Your task to perform on an android device: check battery use Image 0: 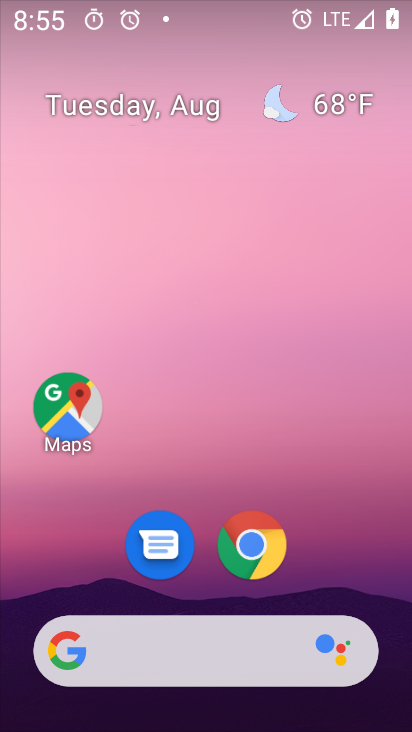
Step 0: drag from (267, 580) to (330, 79)
Your task to perform on an android device: check battery use Image 1: 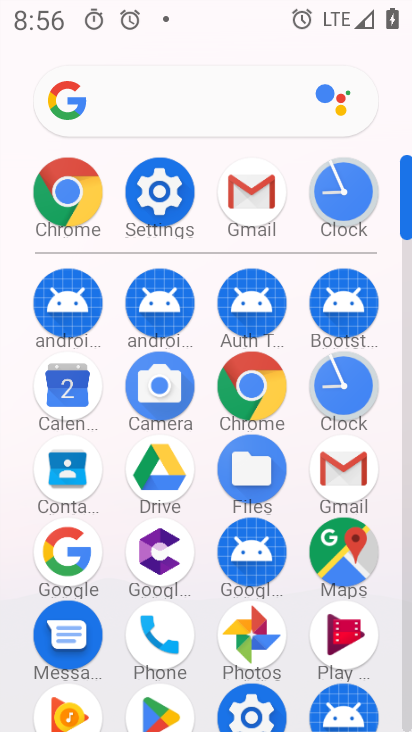
Step 1: click (167, 205)
Your task to perform on an android device: check battery use Image 2: 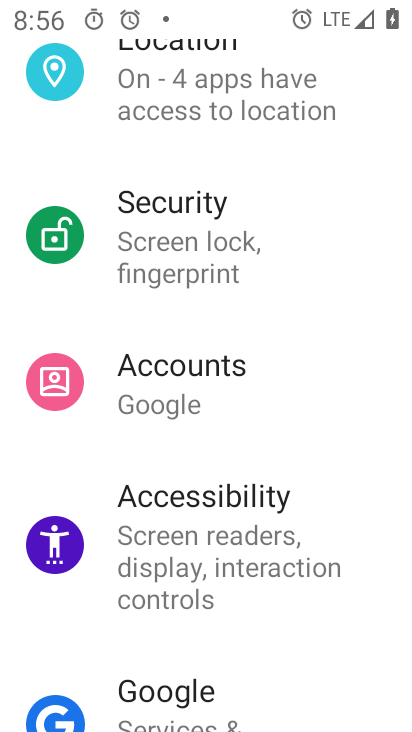
Step 2: drag from (170, 253) to (132, 557)
Your task to perform on an android device: check battery use Image 3: 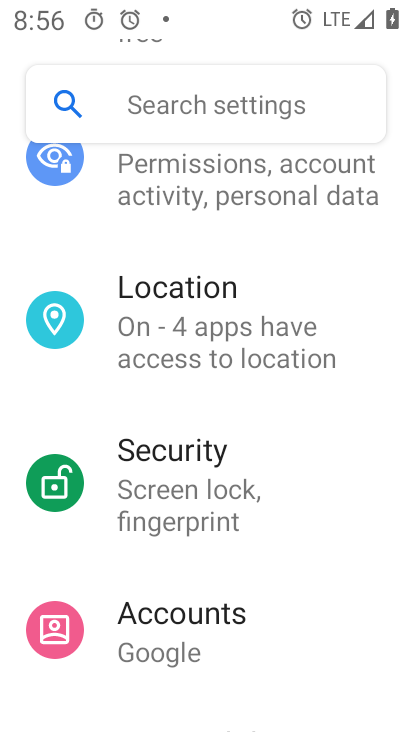
Step 3: drag from (191, 368) to (179, 722)
Your task to perform on an android device: check battery use Image 4: 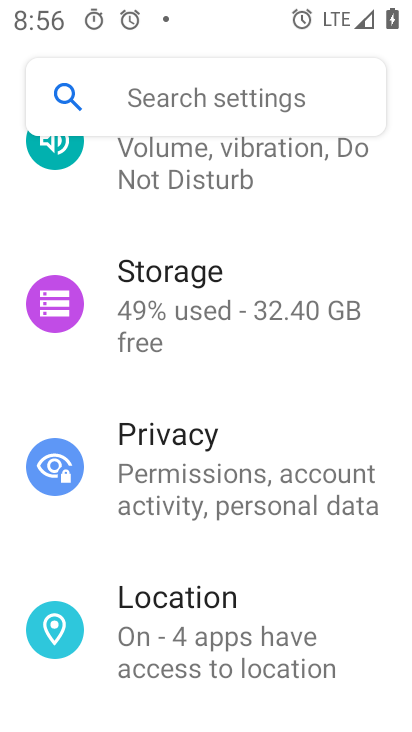
Step 4: drag from (219, 310) to (187, 671)
Your task to perform on an android device: check battery use Image 5: 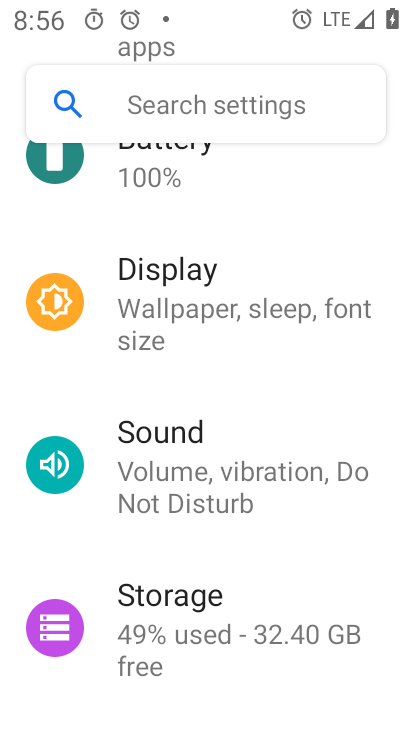
Step 5: drag from (192, 310) to (178, 583)
Your task to perform on an android device: check battery use Image 6: 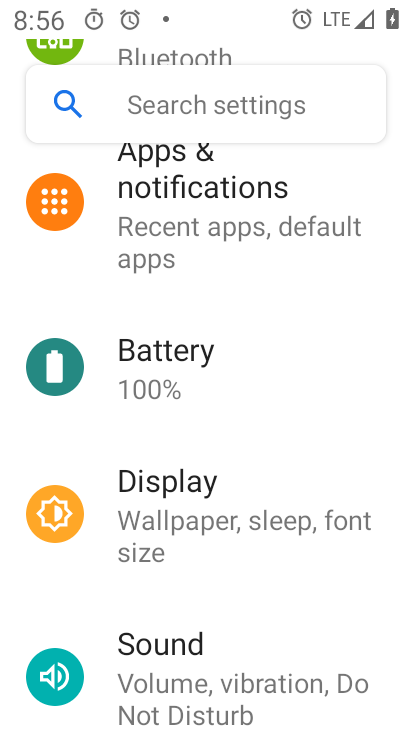
Step 6: click (177, 364)
Your task to perform on an android device: check battery use Image 7: 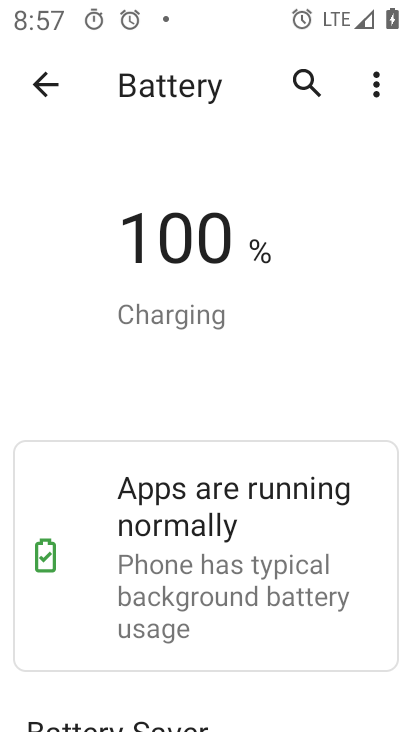
Step 7: task complete